Your task to perform on an android device: snooze an email in the gmail app Image 0: 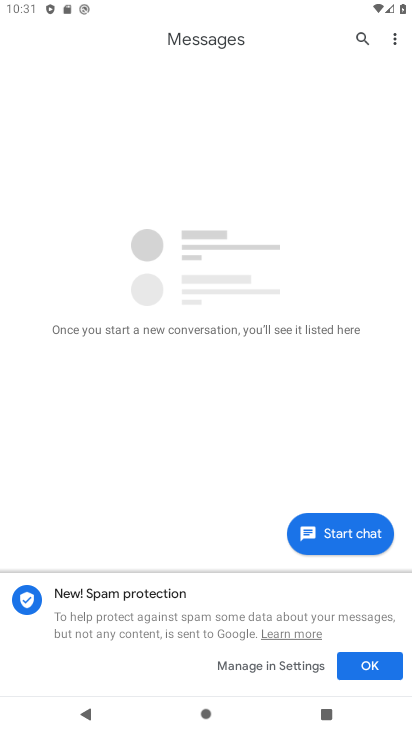
Step 0: press home button
Your task to perform on an android device: snooze an email in the gmail app Image 1: 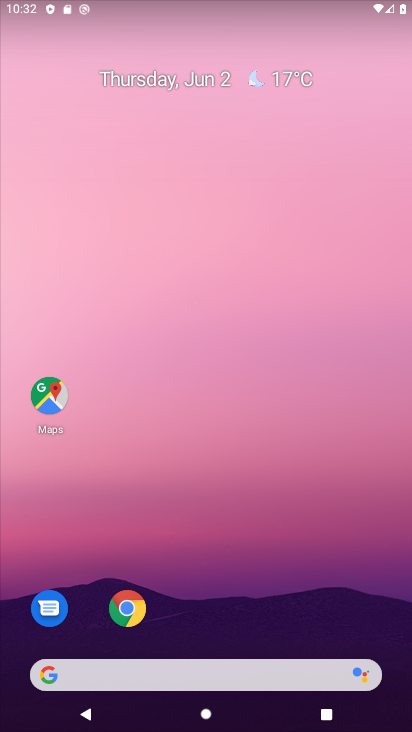
Step 1: drag from (270, 594) to (182, 51)
Your task to perform on an android device: snooze an email in the gmail app Image 2: 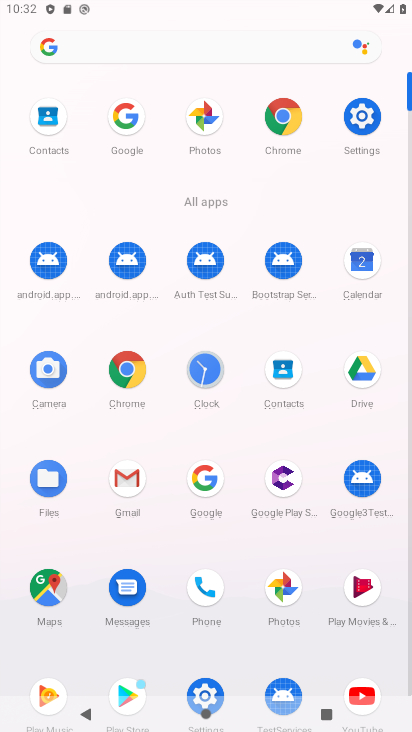
Step 2: click (129, 489)
Your task to perform on an android device: snooze an email in the gmail app Image 3: 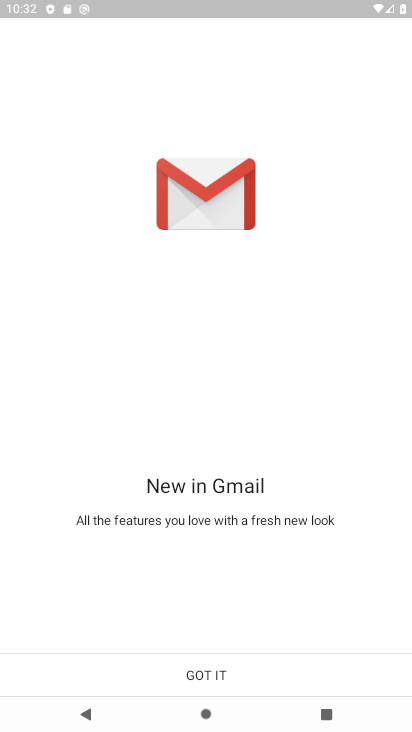
Step 3: click (197, 669)
Your task to perform on an android device: snooze an email in the gmail app Image 4: 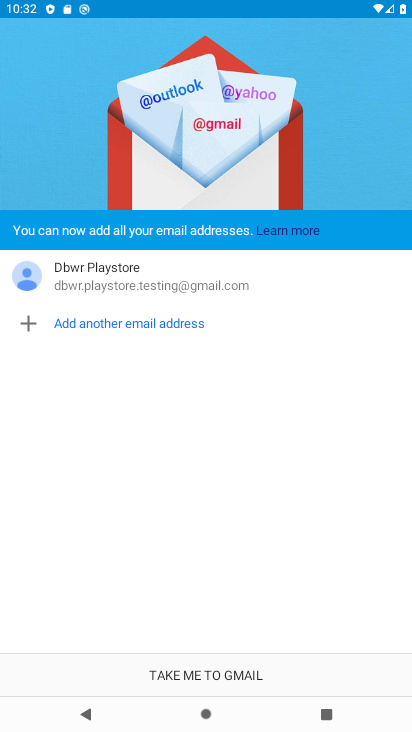
Step 4: click (196, 669)
Your task to perform on an android device: snooze an email in the gmail app Image 5: 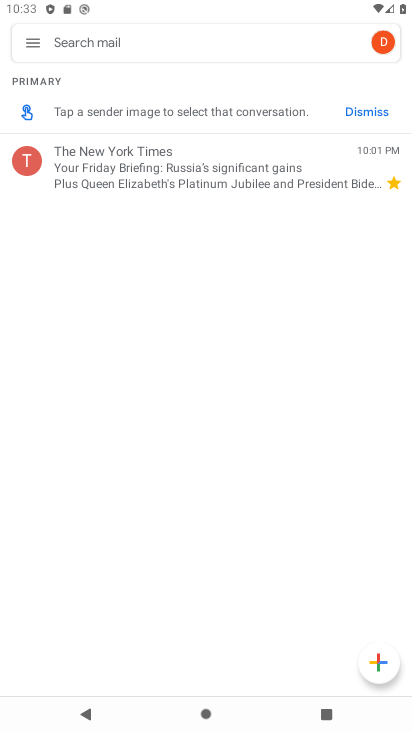
Step 5: click (167, 169)
Your task to perform on an android device: snooze an email in the gmail app Image 6: 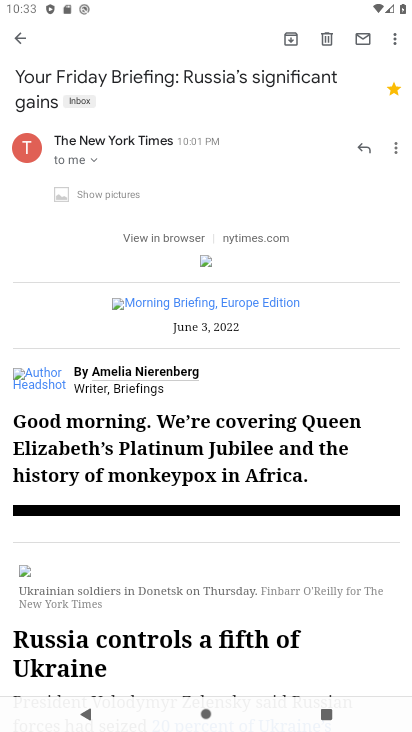
Step 6: click (396, 39)
Your task to perform on an android device: snooze an email in the gmail app Image 7: 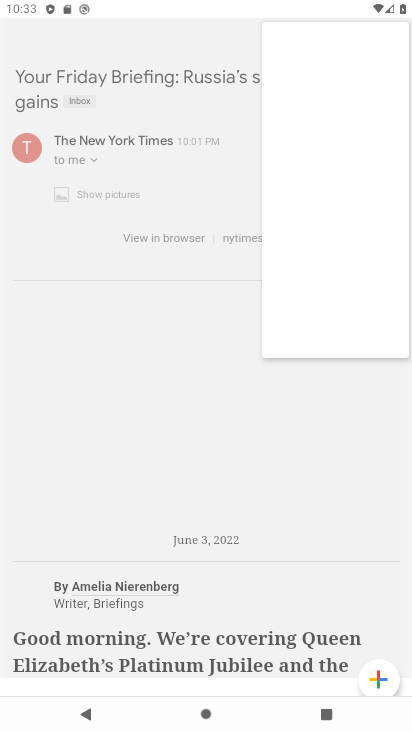
Step 7: click (317, 85)
Your task to perform on an android device: snooze an email in the gmail app Image 8: 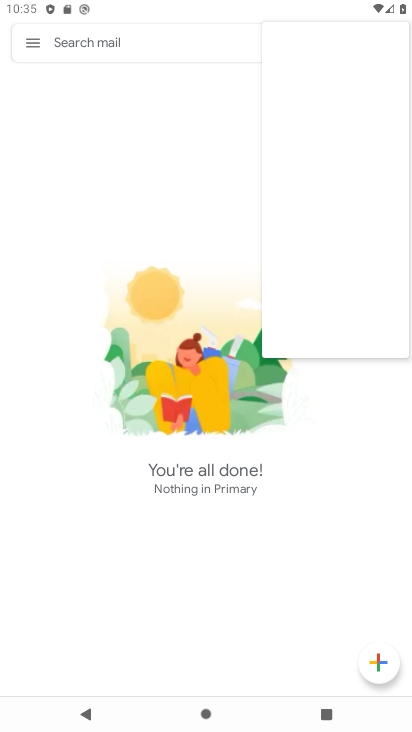
Step 8: task complete